Your task to perform on an android device: Search for "razer blade" on amazon, select the first entry, add it to the cart, then select checkout. Image 0: 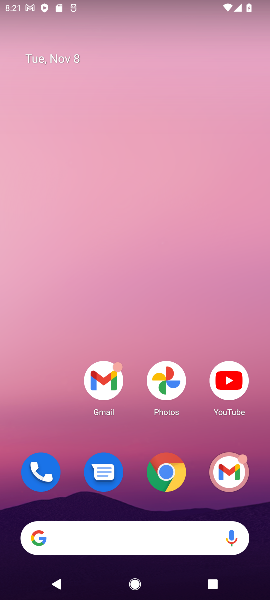
Step 0: click (169, 470)
Your task to perform on an android device: Search for "razer blade" on amazon, select the first entry, add it to the cart, then select checkout. Image 1: 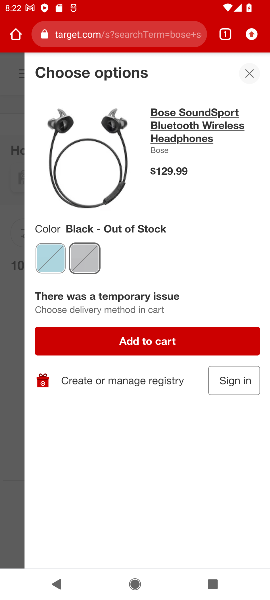
Step 1: click (120, 34)
Your task to perform on an android device: Search for "razer blade" on amazon, select the first entry, add it to the cart, then select checkout. Image 2: 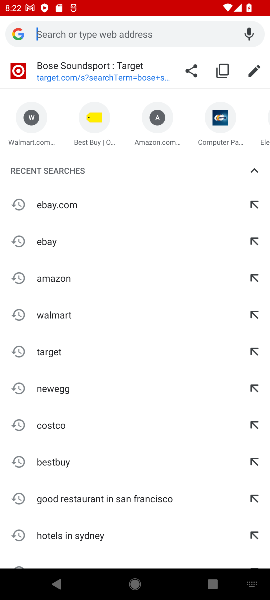
Step 2: click (50, 271)
Your task to perform on an android device: Search for "razer blade" on amazon, select the first entry, add it to the cart, then select checkout. Image 3: 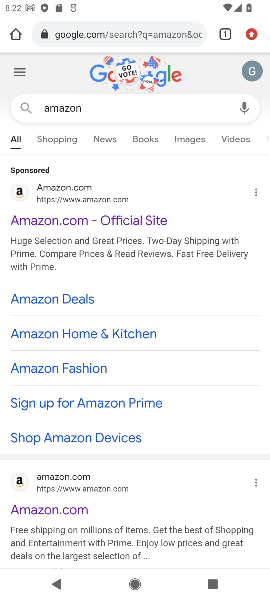
Step 3: click (79, 221)
Your task to perform on an android device: Search for "razer blade" on amazon, select the first entry, add it to the cart, then select checkout. Image 4: 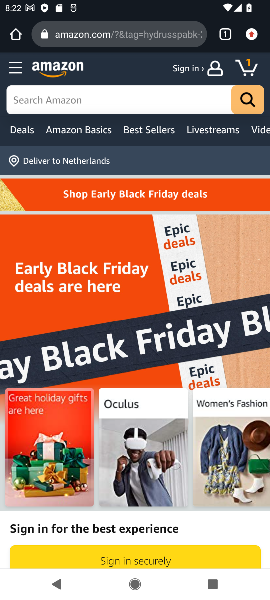
Step 4: click (101, 97)
Your task to perform on an android device: Search for "razer blade" on amazon, select the first entry, add it to the cart, then select checkout. Image 5: 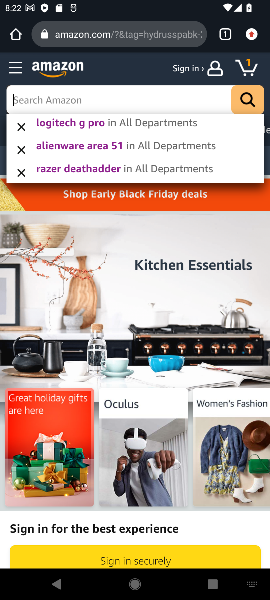
Step 5: type "razer blade"
Your task to perform on an android device: Search for "razer blade" on amazon, select the first entry, add it to the cart, then select checkout. Image 6: 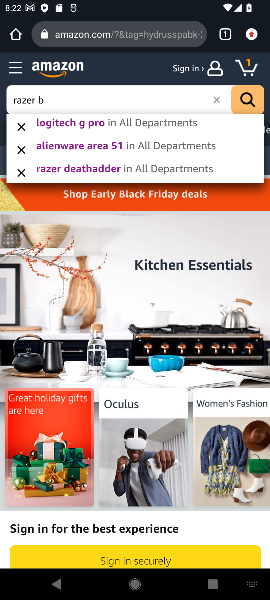
Step 6: press enter
Your task to perform on an android device: Search for "razer blade" on amazon, select the first entry, add it to the cart, then select checkout. Image 7: 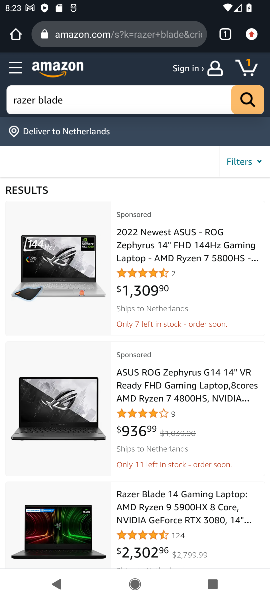
Step 7: click (167, 255)
Your task to perform on an android device: Search for "razer blade" on amazon, select the first entry, add it to the cart, then select checkout. Image 8: 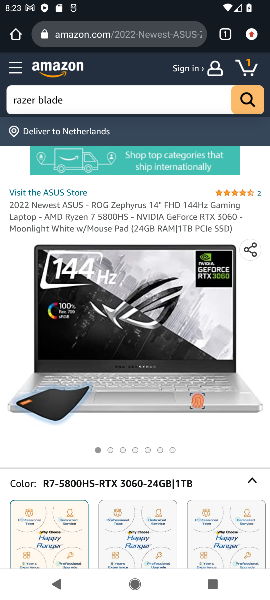
Step 8: task complete